Your task to perform on an android device: turn on bluetooth scan Image 0: 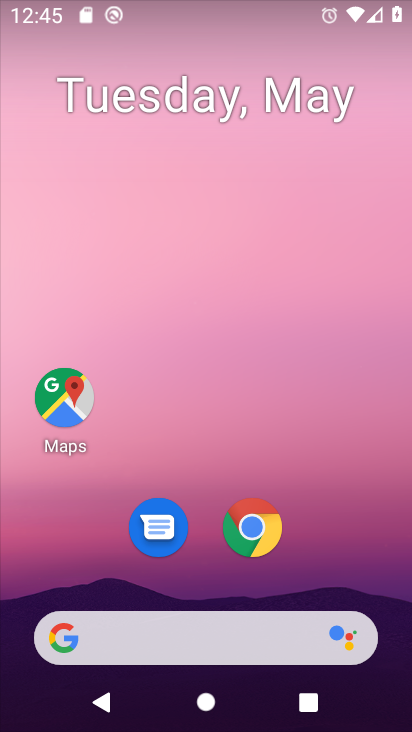
Step 0: drag from (257, 719) to (299, 58)
Your task to perform on an android device: turn on bluetooth scan Image 1: 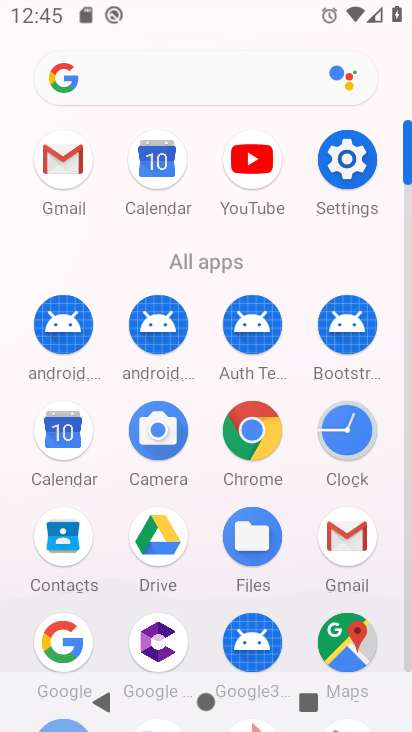
Step 1: click (332, 167)
Your task to perform on an android device: turn on bluetooth scan Image 2: 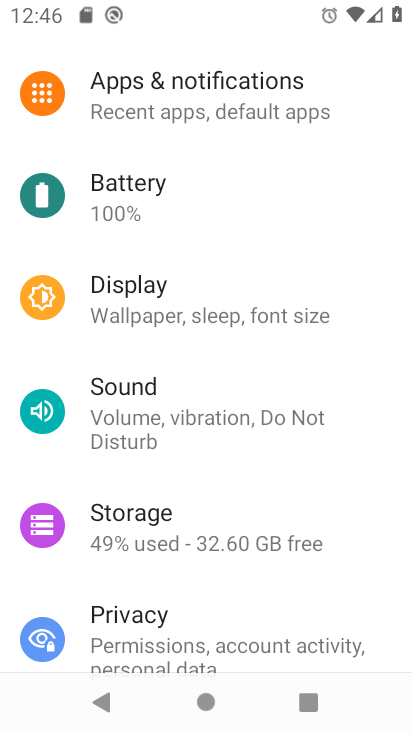
Step 2: drag from (260, 573) to (334, 0)
Your task to perform on an android device: turn on bluetooth scan Image 3: 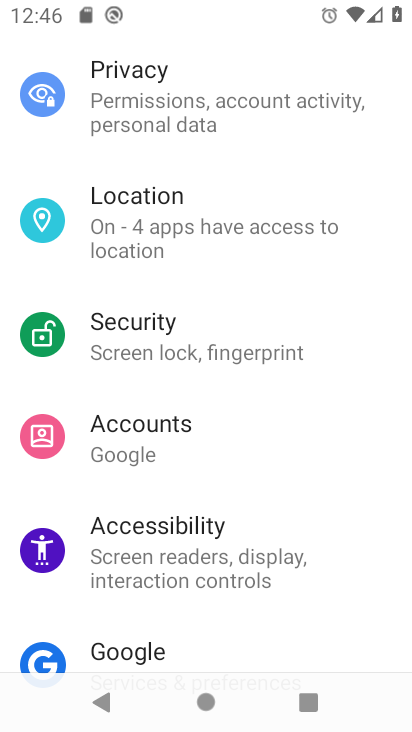
Step 3: click (236, 228)
Your task to perform on an android device: turn on bluetooth scan Image 4: 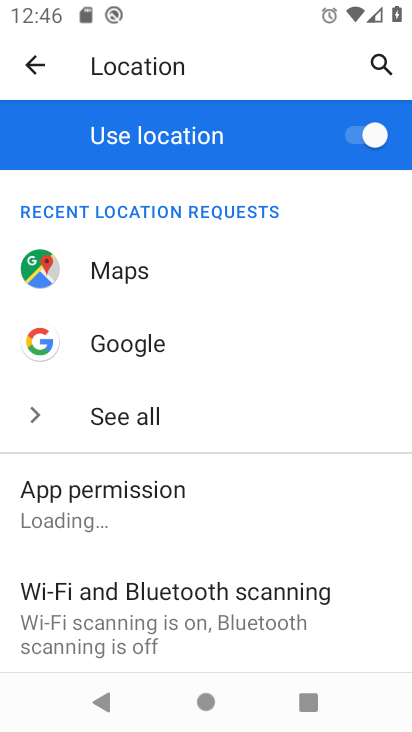
Step 4: click (206, 601)
Your task to perform on an android device: turn on bluetooth scan Image 5: 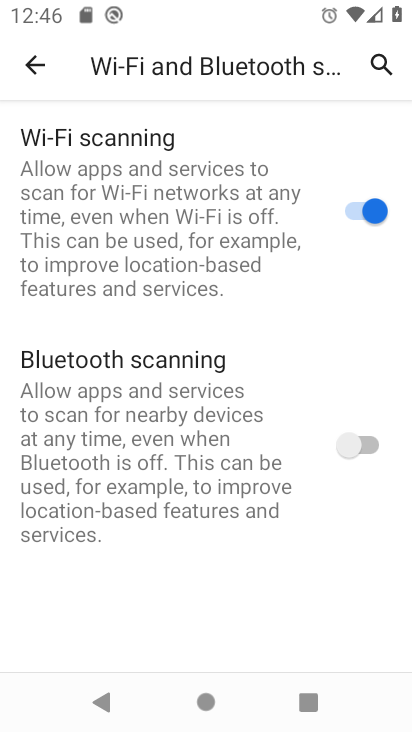
Step 5: click (367, 450)
Your task to perform on an android device: turn on bluetooth scan Image 6: 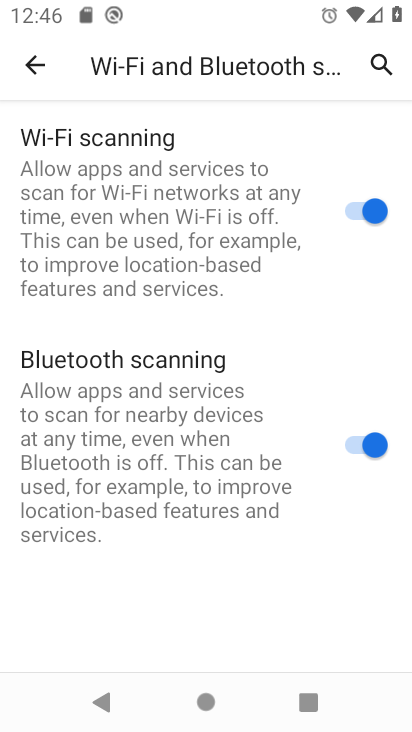
Step 6: task complete